Your task to perform on an android device: turn off sleep mode Image 0: 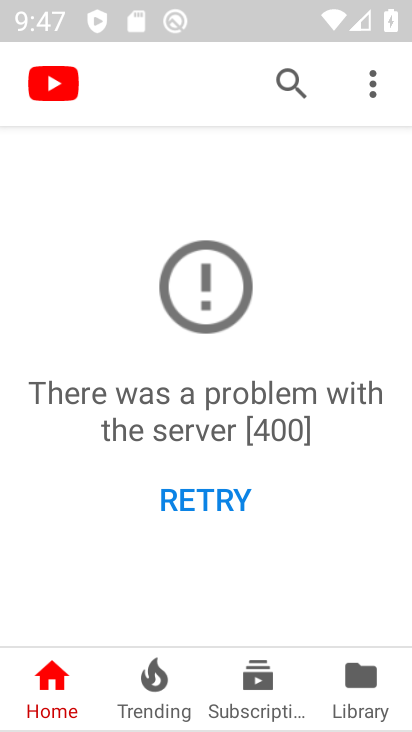
Step 0: press home button
Your task to perform on an android device: turn off sleep mode Image 1: 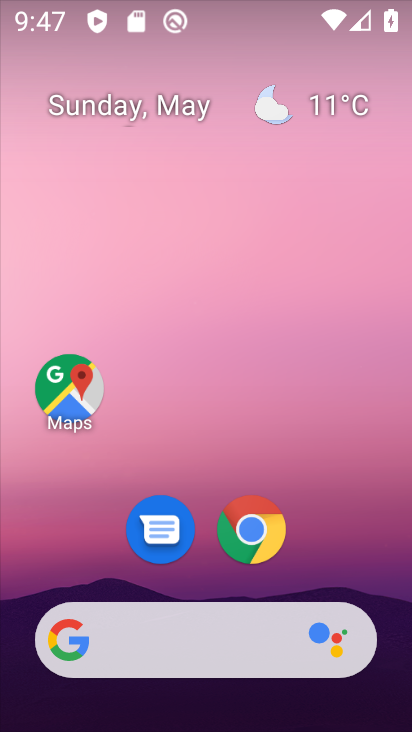
Step 1: drag from (91, 596) to (221, 74)
Your task to perform on an android device: turn off sleep mode Image 2: 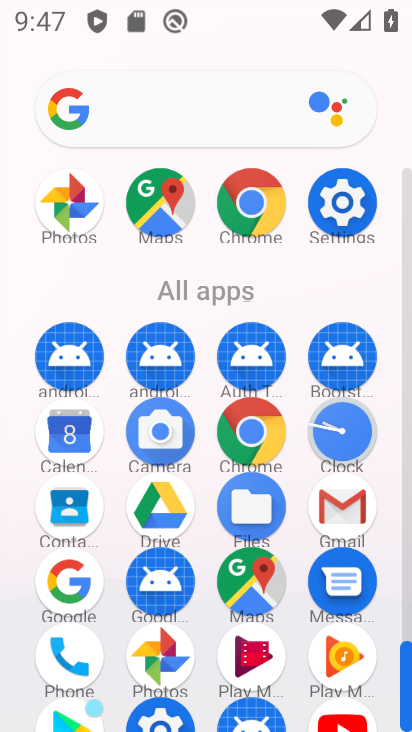
Step 2: click (352, 202)
Your task to perform on an android device: turn off sleep mode Image 3: 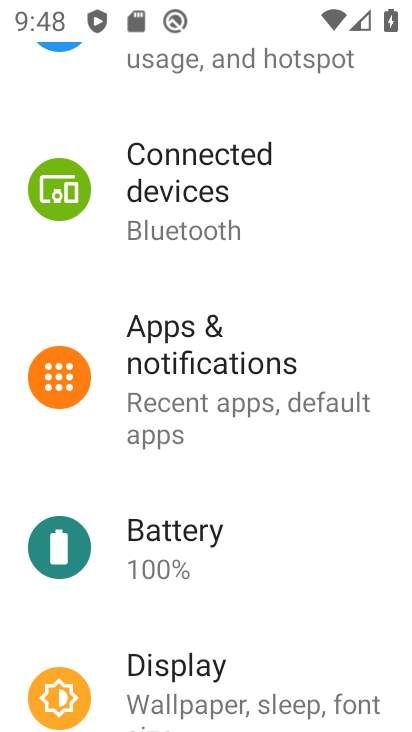
Step 3: drag from (273, 186) to (302, 455)
Your task to perform on an android device: turn off sleep mode Image 4: 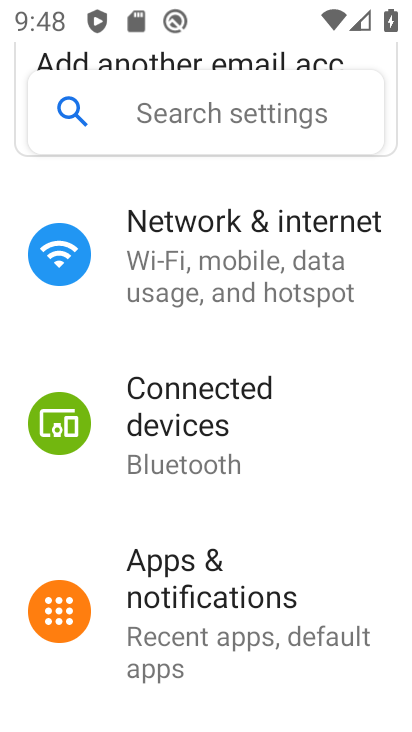
Step 4: drag from (197, 640) to (322, 373)
Your task to perform on an android device: turn off sleep mode Image 5: 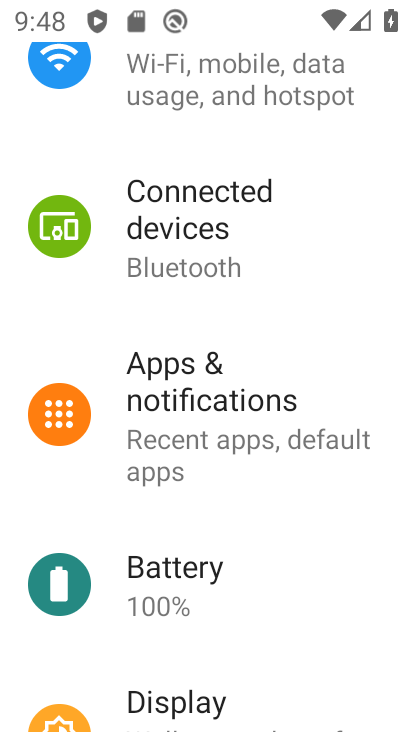
Step 5: drag from (321, 371) to (372, 61)
Your task to perform on an android device: turn off sleep mode Image 6: 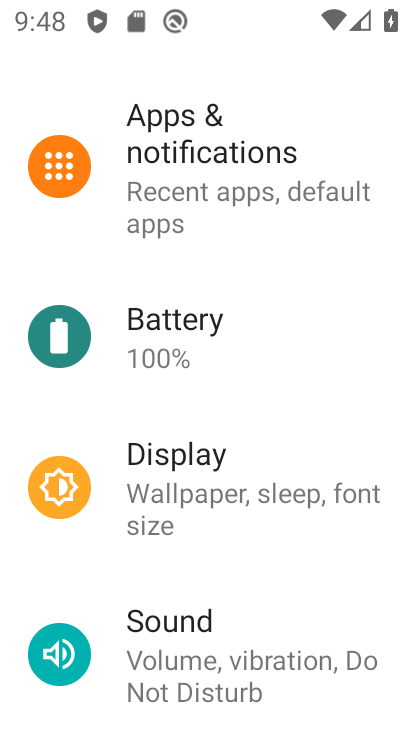
Step 6: click (199, 501)
Your task to perform on an android device: turn off sleep mode Image 7: 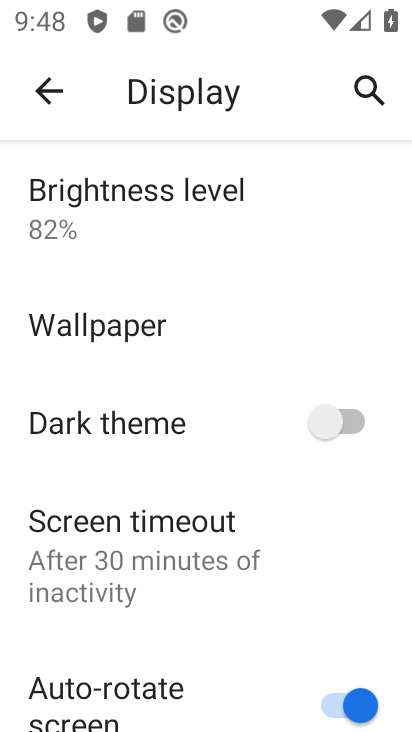
Step 7: drag from (198, 697) to (337, 313)
Your task to perform on an android device: turn off sleep mode Image 8: 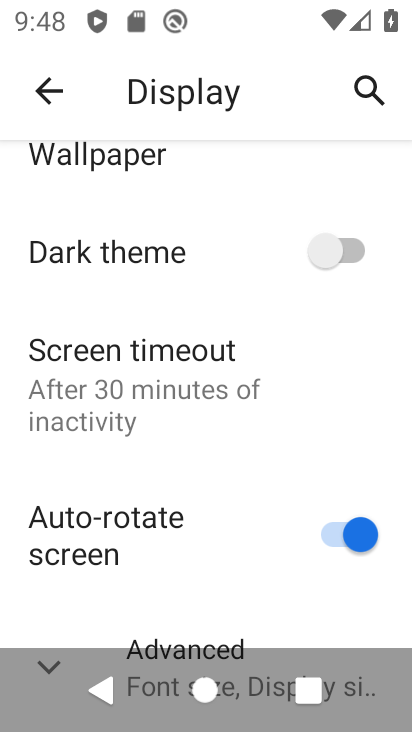
Step 8: drag from (226, 544) to (262, 359)
Your task to perform on an android device: turn off sleep mode Image 9: 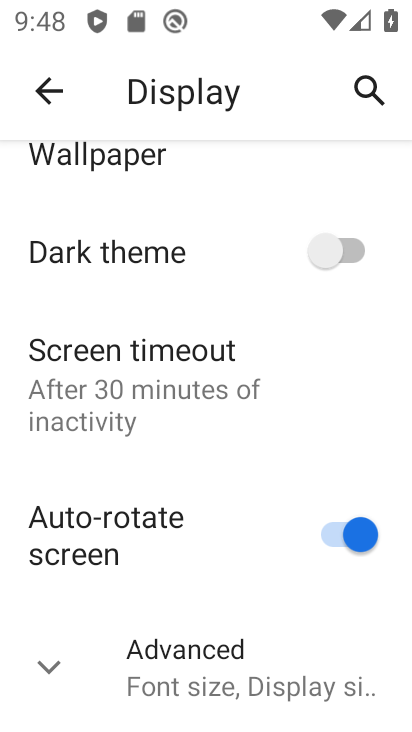
Step 9: click (194, 656)
Your task to perform on an android device: turn off sleep mode Image 10: 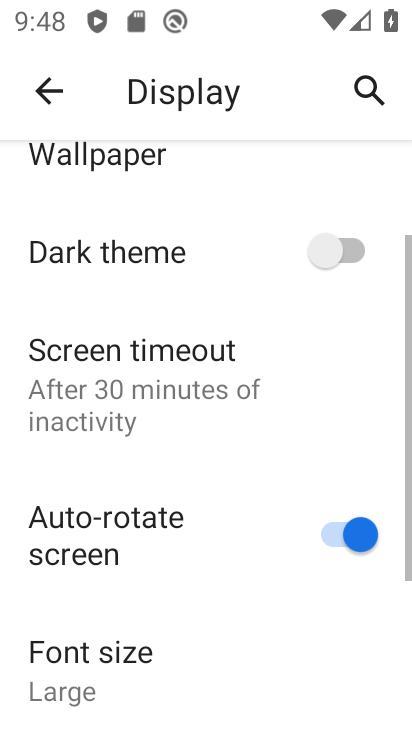
Step 10: task complete